Your task to perform on an android device: turn on wifi Image 0: 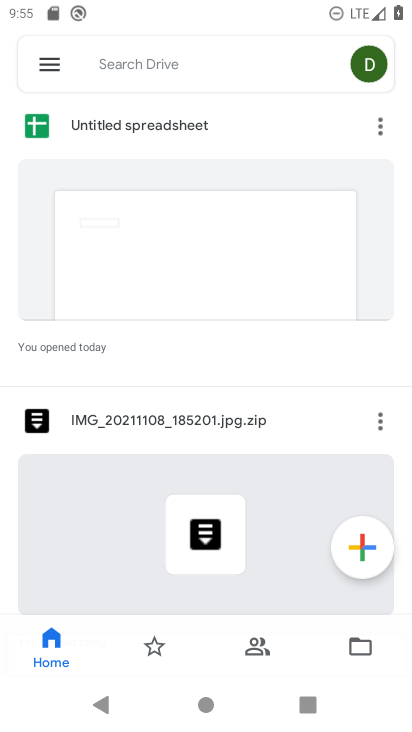
Step 0: press home button
Your task to perform on an android device: turn on wifi Image 1: 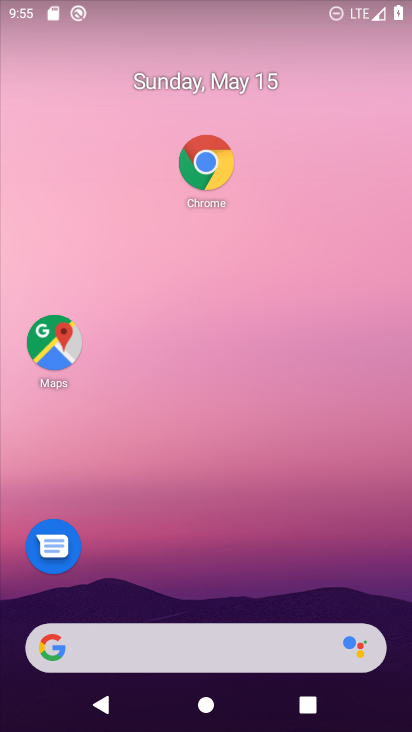
Step 1: drag from (237, 578) to (215, 249)
Your task to perform on an android device: turn on wifi Image 2: 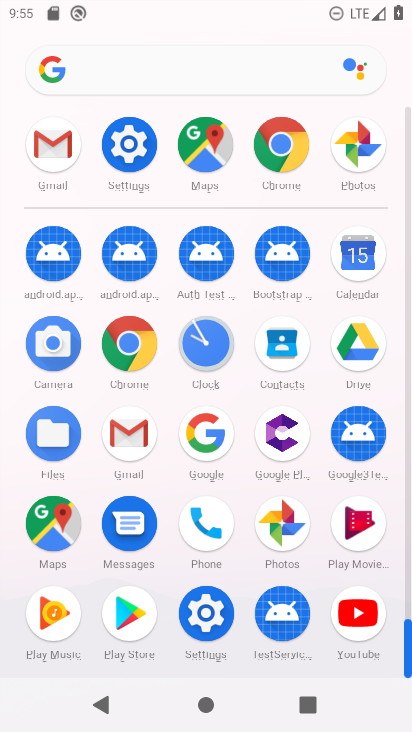
Step 2: click (131, 149)
Your task to perform on an android device: turn on wifi Image 3: 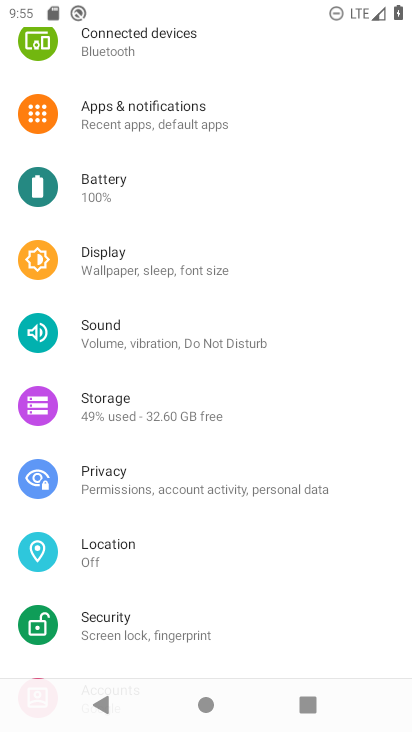
Step 3: drag from (197, 101) to (178, 709)
Your task to perform on an android device: turn on wifi Image 4: 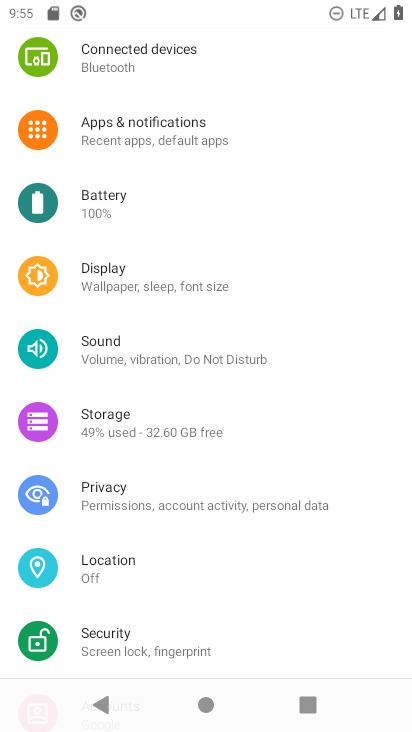
Step 4: drag from (184, 238) to (176, 469)
Your task to perform on an android device: turn on wifi Image 5: 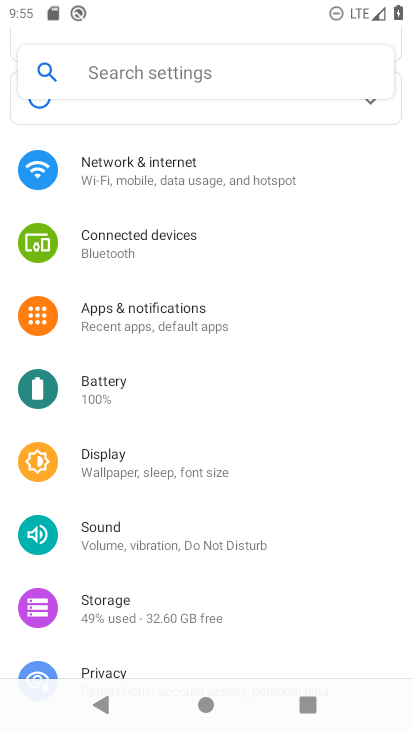
Step 5: drag from (211, 189) to (189, 591)
Your task to perform on an android device: turn on wifi Image 6: 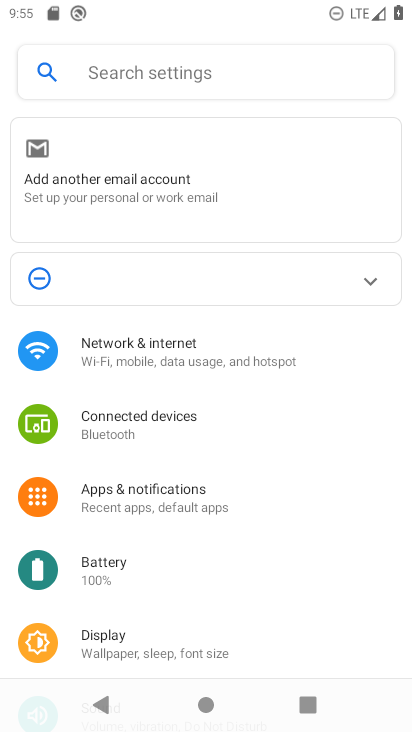
Step 6: click (185, 348)
Your task to perform on an android device: turn on wifi Image 7: 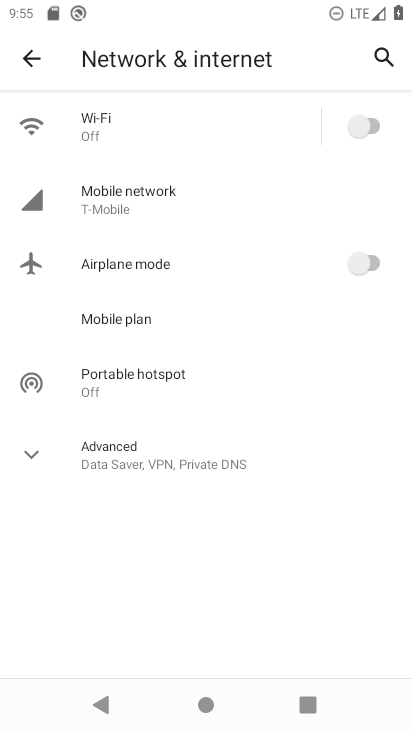
Step 7: click (358, 121)
Your task to perform on an android device: turn on wifi Image 8: 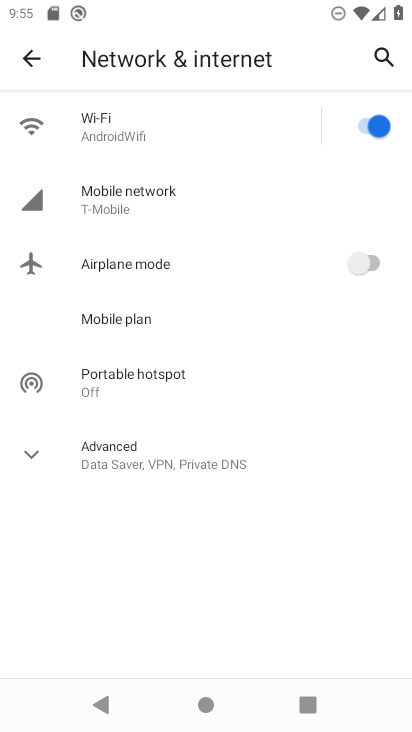
Step 8: task complete